Your task to perform on an android device: turn off improve location accuracy Image 0: 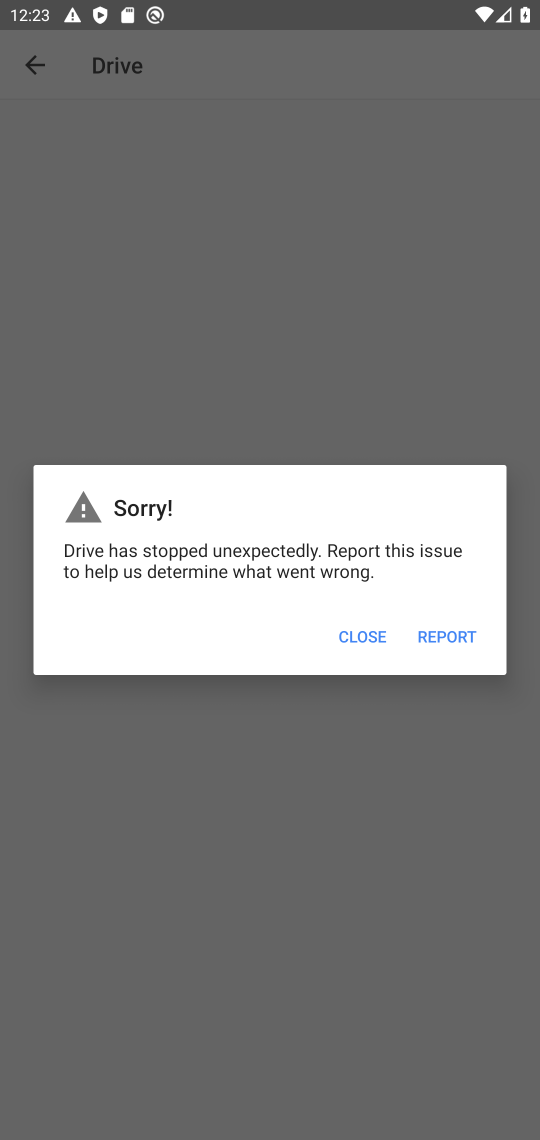
Step 0: press home button
Your task to perform on an android device: turn off improve location accuracy Image 1: 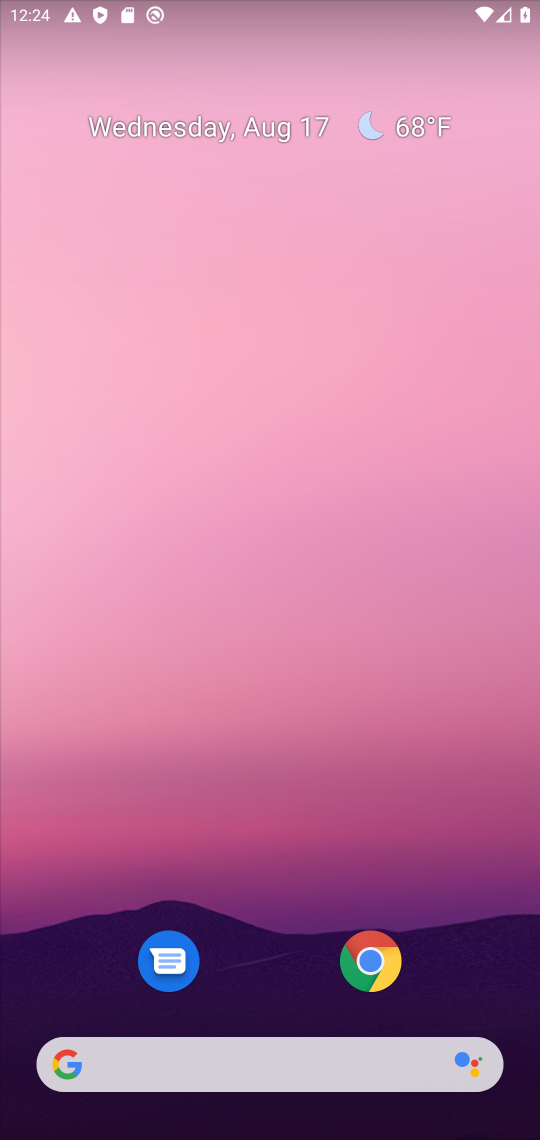
Step 1: drag from (269, 1001) to (348, 140)
Your task to perform on an android device: turn off improve location accuracy Image 2: 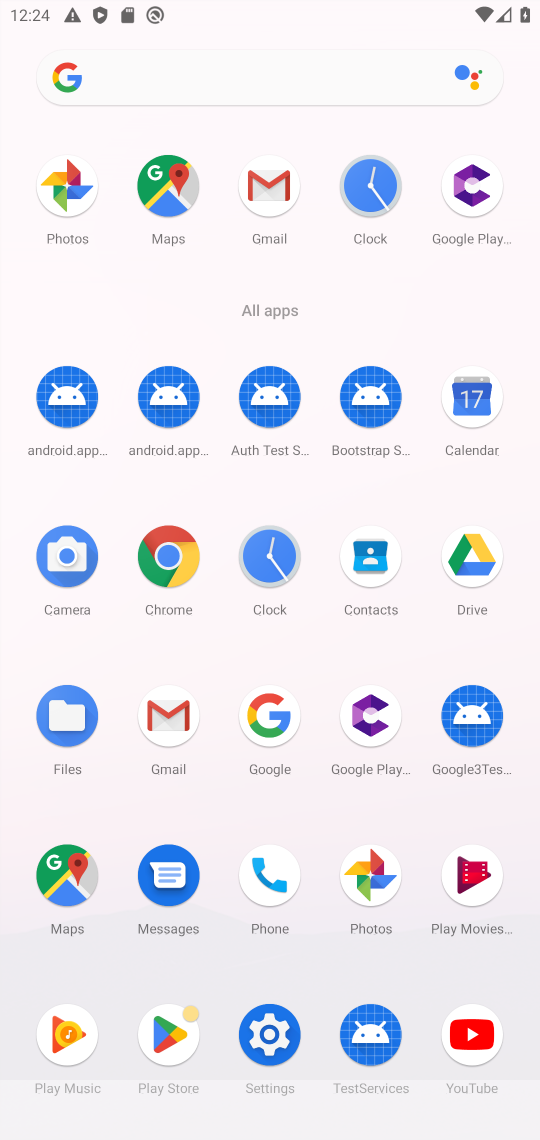
Step 2: click (279, 1034)
Your task to perform on an android device: turn off improve location accuracy Image 3: 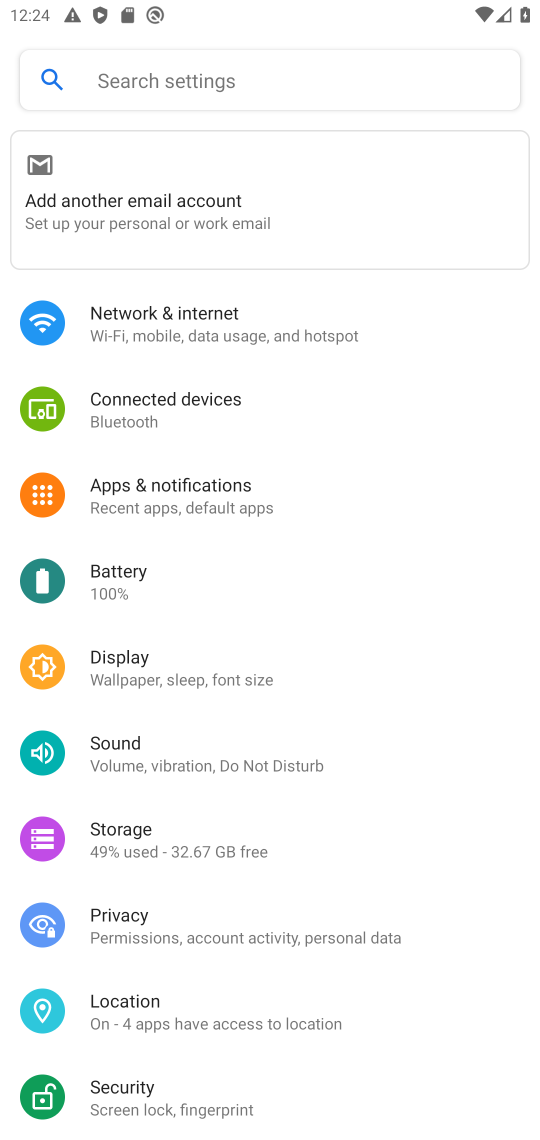
Step 3: click (229, 1032)
Your task to perform on an android device: turn off improve location accuracy Image 4: 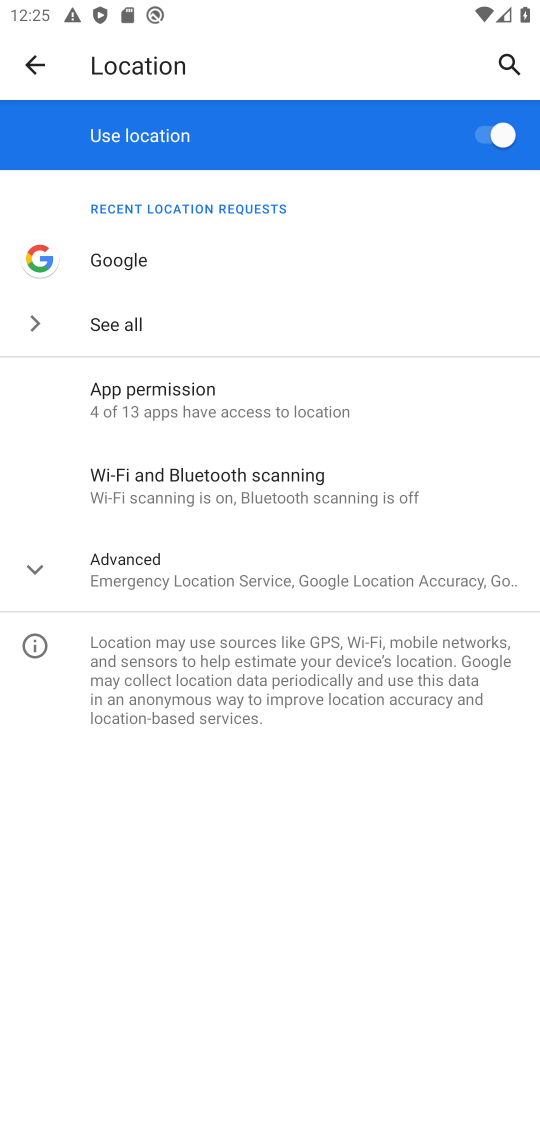
Step 4: click (204, 598)
Your task to perform on an android device: turn off improve location accuracy Image 5: 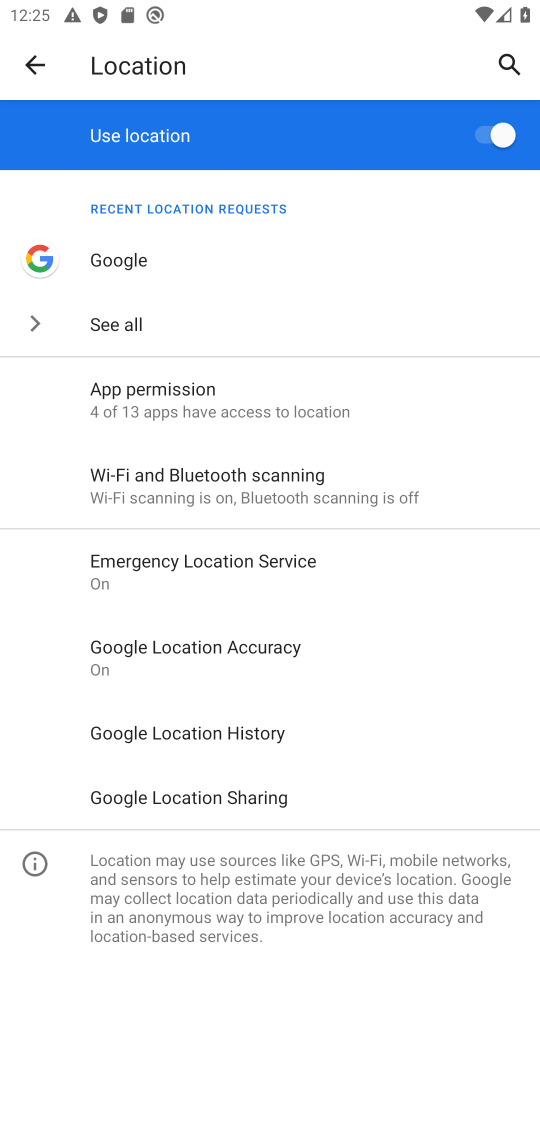
Step 5: click (266, 650)
Your task to perform on an android device: turn off improve location accuracy Image 6: 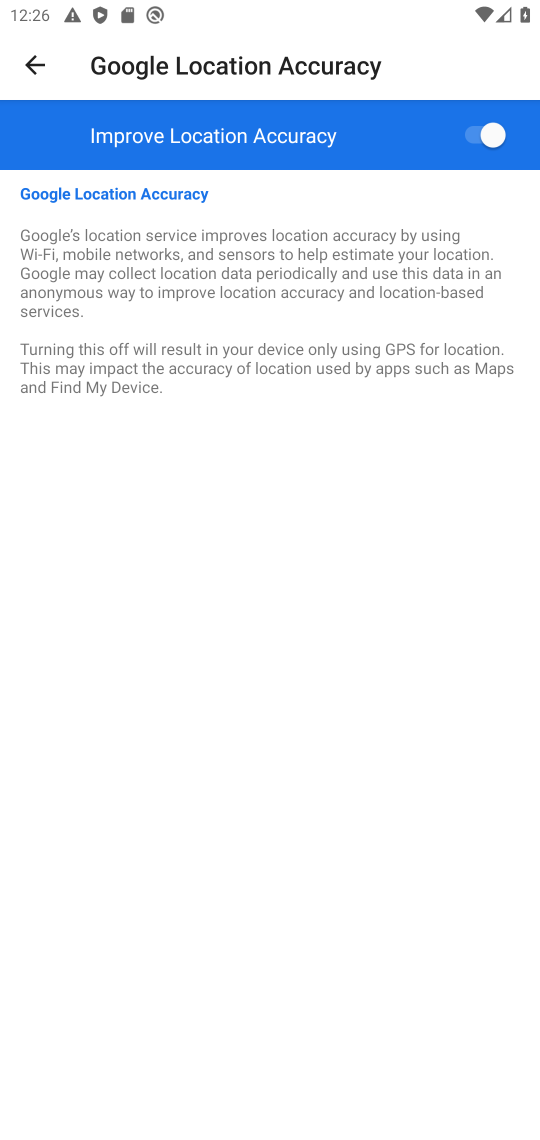
Step 6: click (448, 146)
Your task to perform on an android device: turn off improve location accuracy Image 7: 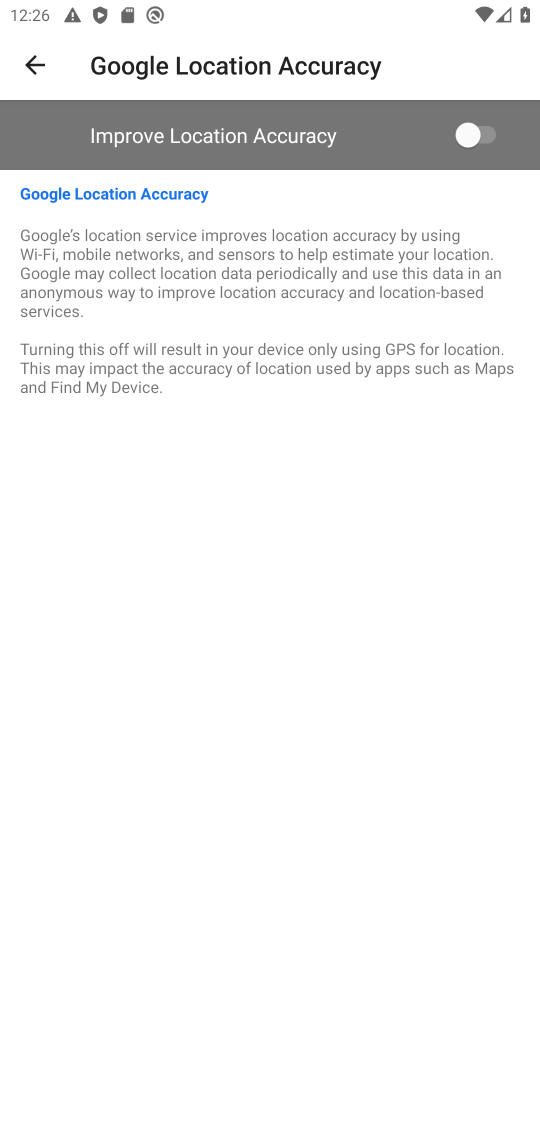
Step 7: task complete